Your task to perform on an android device: turn on translation in the chrome app Image 0: 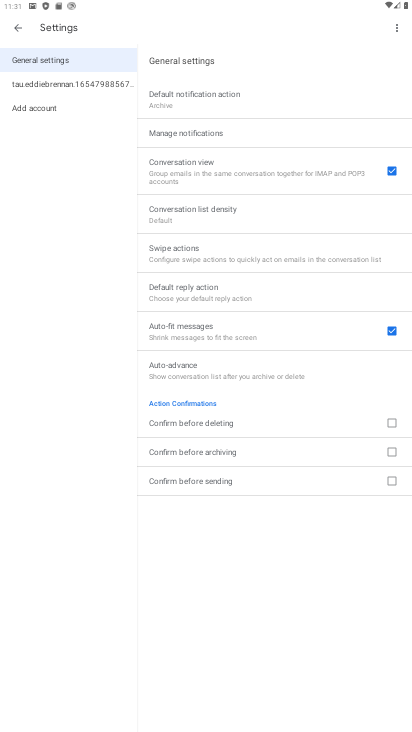
Step 0: press home button
Your task to perform on an android device: turn on translation in the chrome app Image 1: 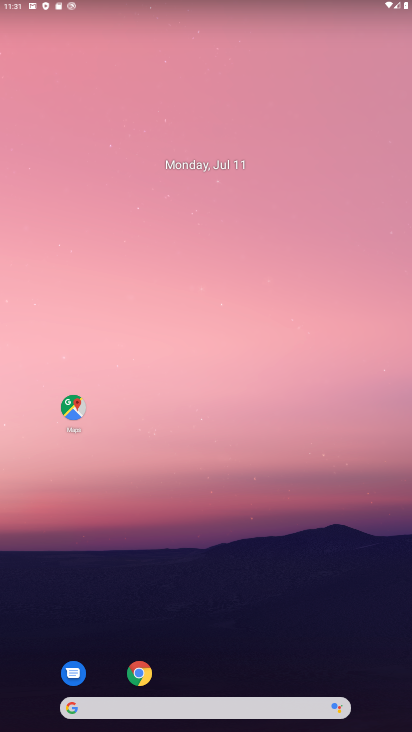
Step 1: click (144, 680)
Your task to perform on an android device: turn on translation in the chrome app Image 2: 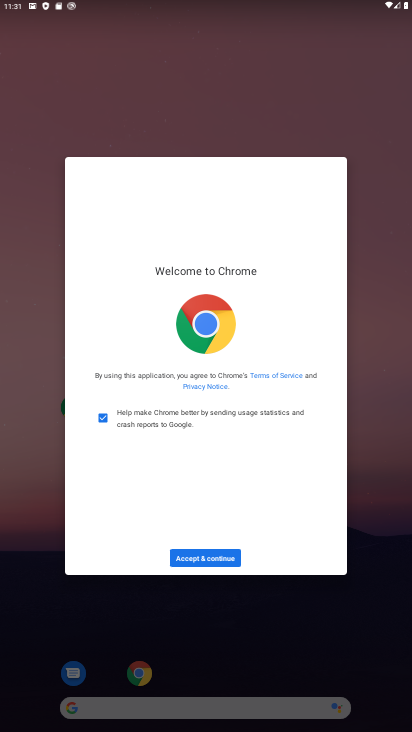
Step 2: click (207, 554)
Your task to perform on an android device: turn on translation in the chrome app Image 3: 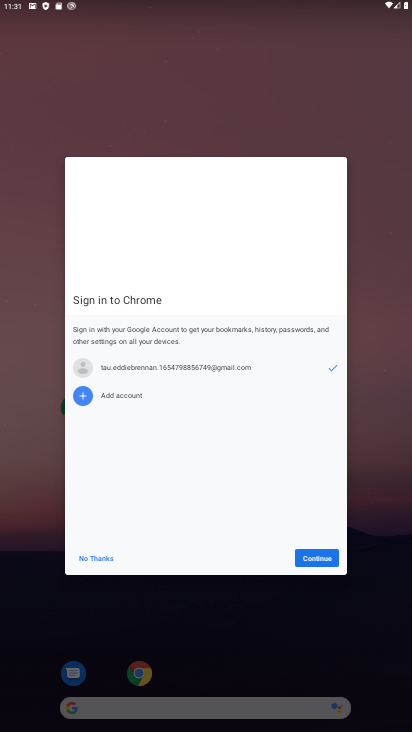
Step 3: click (334, 556)
Your task to perform on an android device: turn on translation in the chrome app Image 4: 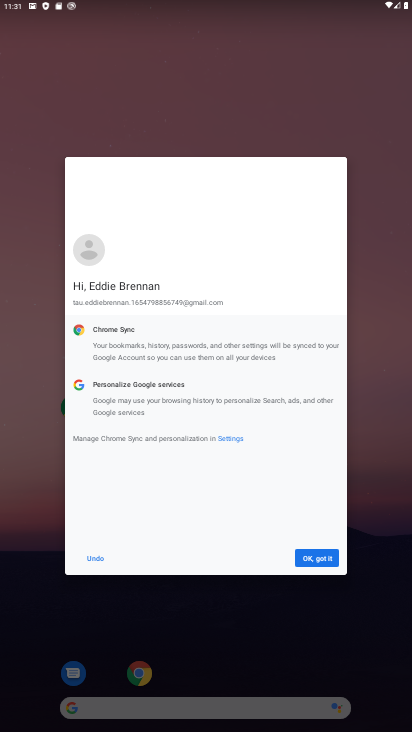
Step 4: click (314, 557)
Your task to perform on an android device: turn on translation in the chrome app Image 5: 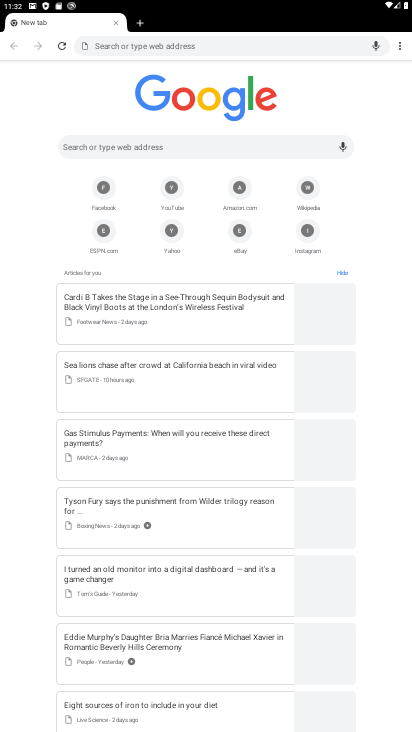
Step 5: click (404, 39)
Your task to perform on an android device: turn on translation in the chrome app Image 6: 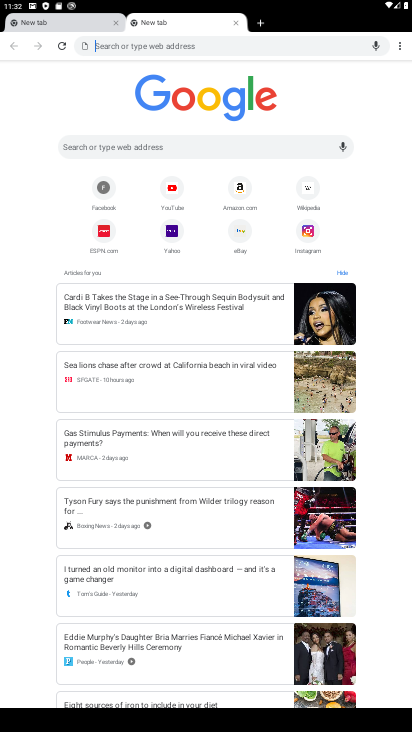
Step 6: drag from (400, 41) to (304, 214)
Your task to perform on an android device: turn on translation in the chrome app Image 7: 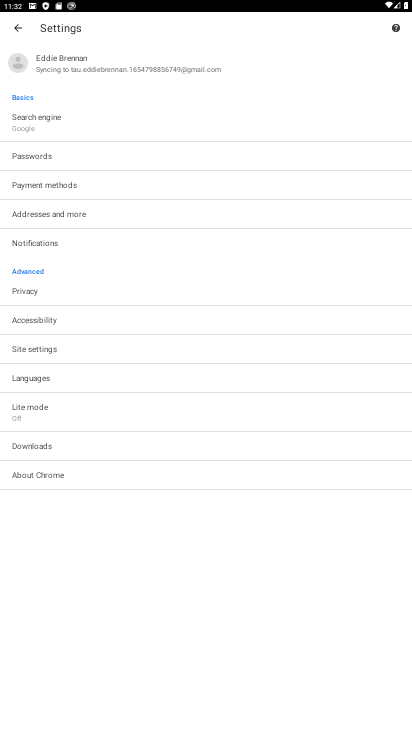
Step 7: click (22, 378)
Your task to perform on an android device: turn on translation in the chrome app Image 8: 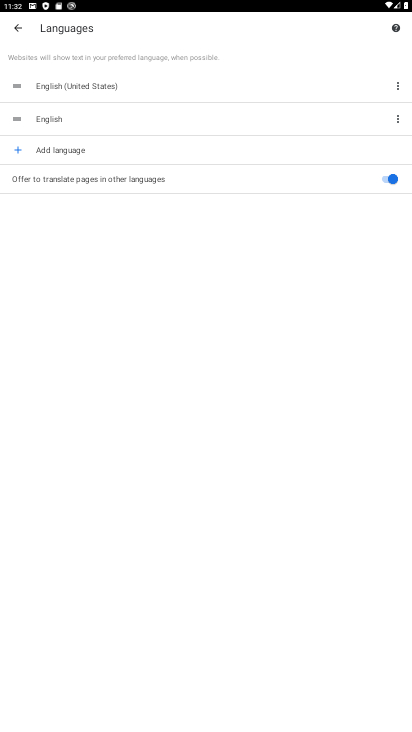
Step 8: task complete